Your task to perform on an android device: clear all cookies in the chrome app Image 0: 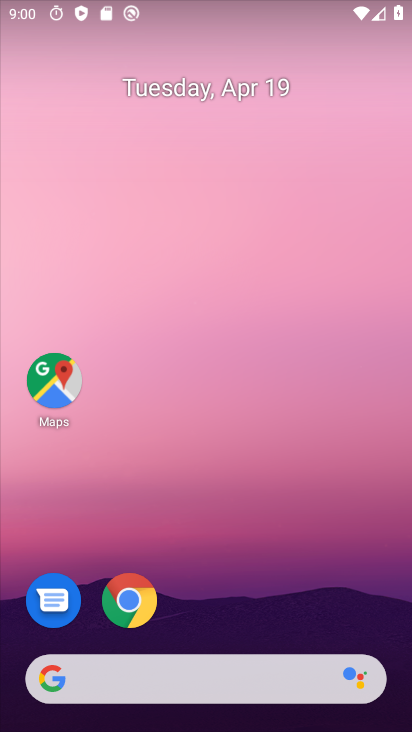
Step 0: click (136, 609)
Your task to perform on an android device: clear all cookies in the chrome app Image 1: 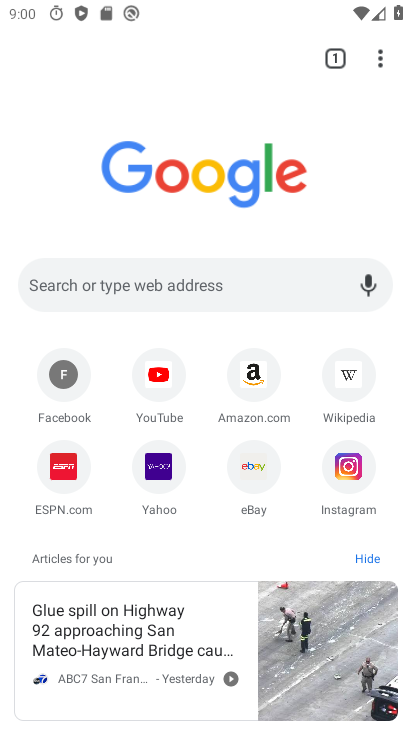
Step 1: click (382, 53)
Your task to perform on an android device: clear all cookies in the chrome app Image 2: 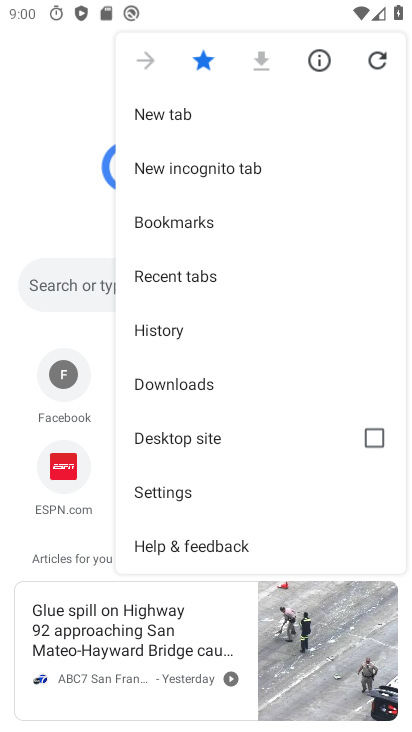
Step 2: click (171, 491)
Your task to perform on an android device: clear all cookies in the chrome app Image 3: 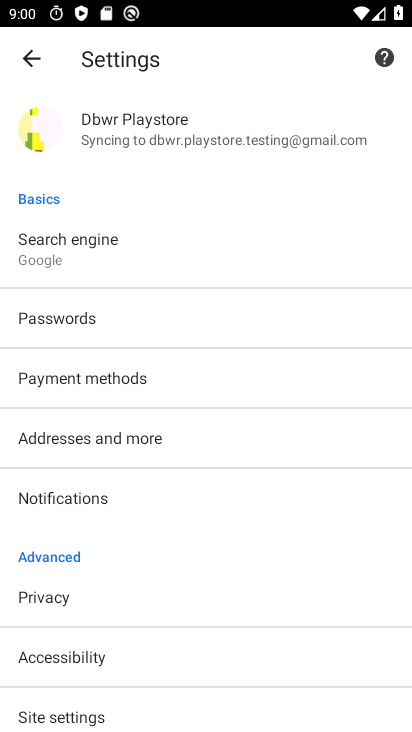
Step 3: drag from (132, 594) to (143, 351)
Your task to perform on an android device: clear all cookies in the chrome app Image 4: 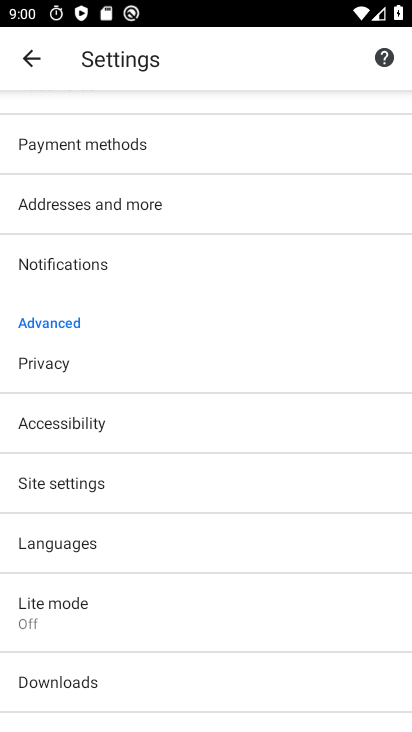
Step 4: click (157, 476)
Your task to perform on an android device: clear all cookies in the chrome app Image 5: 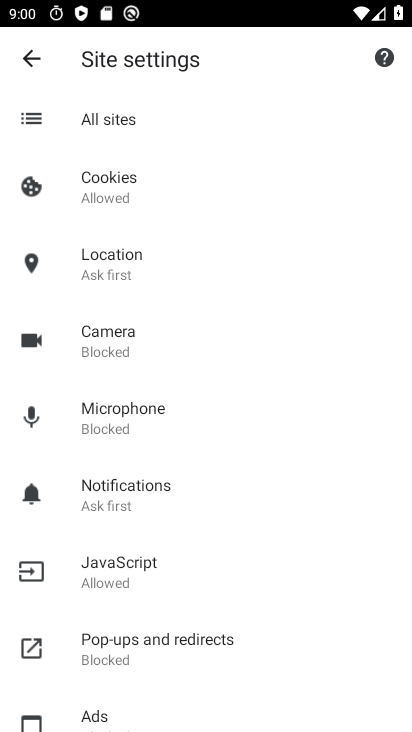
Step 5: click (177, 180)
Your task to perform on an android device: clear all cookies in the chrome app Image 6: 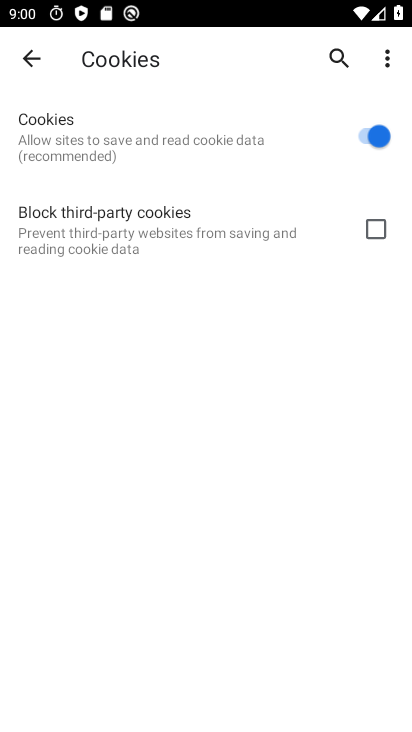
Step 6: task complete